Your task to perform on an android device: change the clock display to digital Image 0: 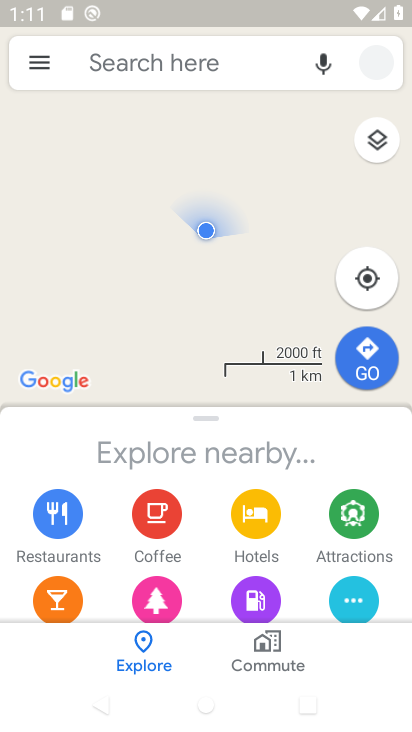
Step 0: press home button
Your task to perform on an android device: change the clock display to digital Image 1: 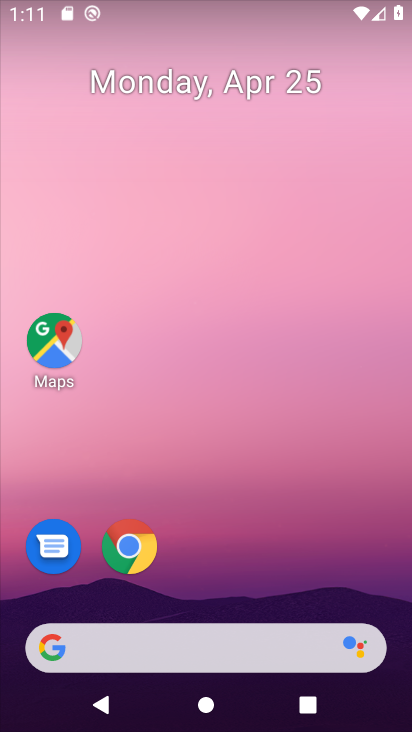
Step 1: drag from (370, 591) to (361, 137)
Your task to perform on an android device: change the clock display to digital Image 2: 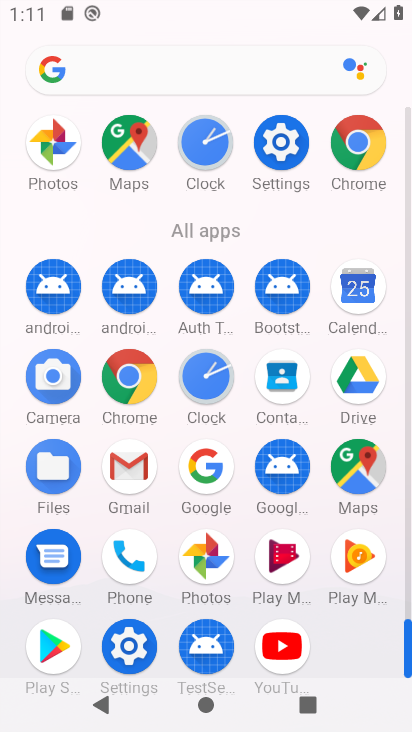
Step 2: click (220, 382)
Your task to perform on an android device: change the clock display to digital Image 3: 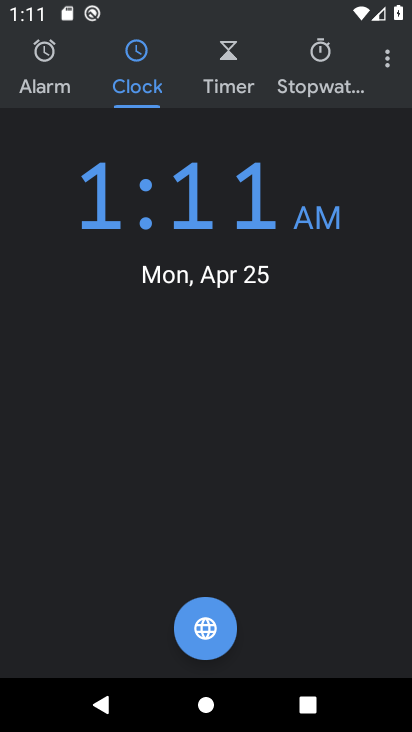
Step 3: click (389, 69)
Your task to perform on an android device: change the clock display to digital Image 4: 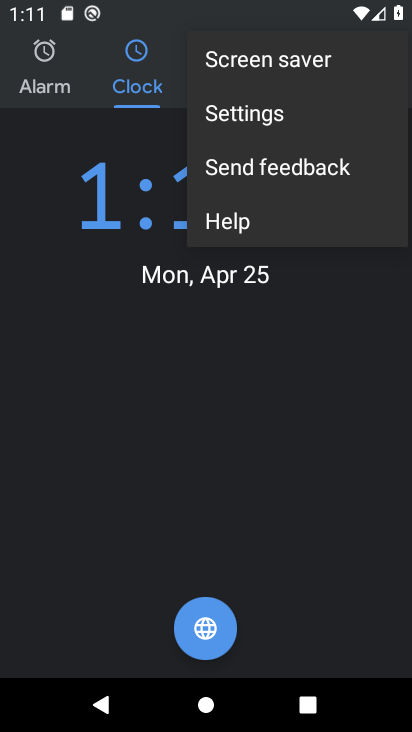
Step 4: click (281, 118)
Your task to perform on an android device: change the clock display to digital Image 5: 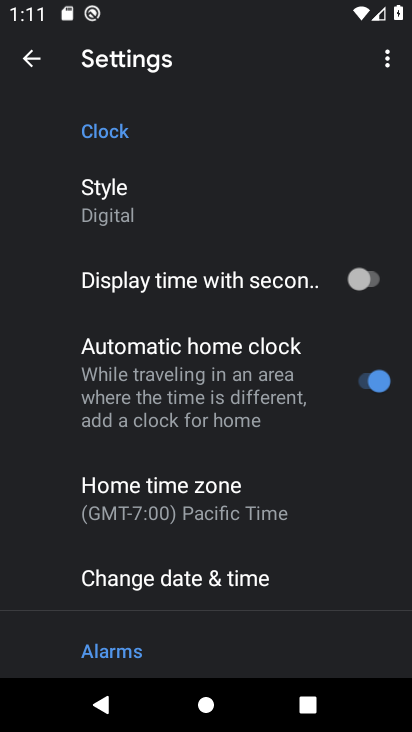
Step 5: task complete